Your task to perform on an android device: turn on the 12-hour format for clock Image 0: 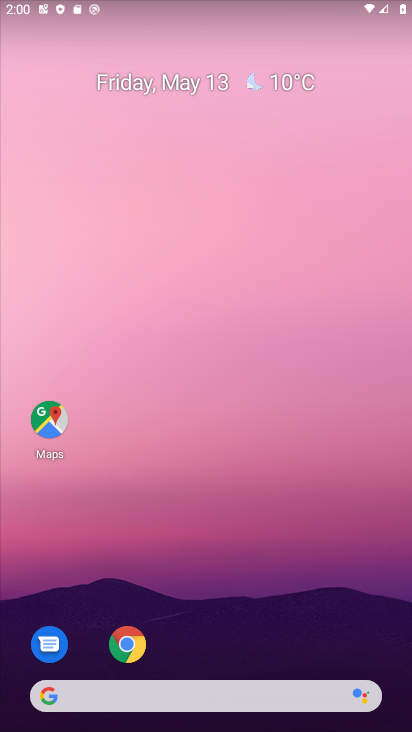
Step 0: drag from (224, 721) to (224, 104)
Your task to perform on an android device: turn on the 12-hour format for clock Image 1: 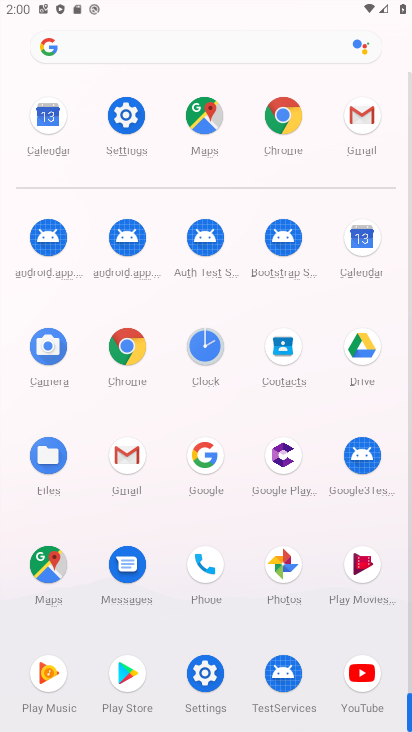
Step 1: click (201, 346)
Your task to perform on an android device: turn on the 12-hour format for clock Image 2: 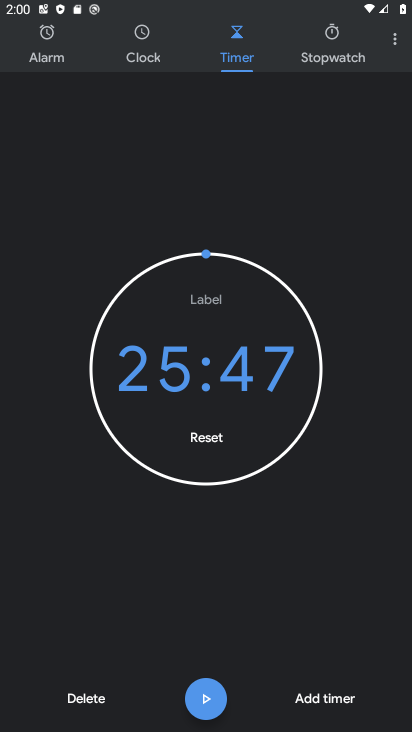
Step 2: click (394, 52)
Your task to perform on an android device: turn on the 12-hour format for clock Image 3: 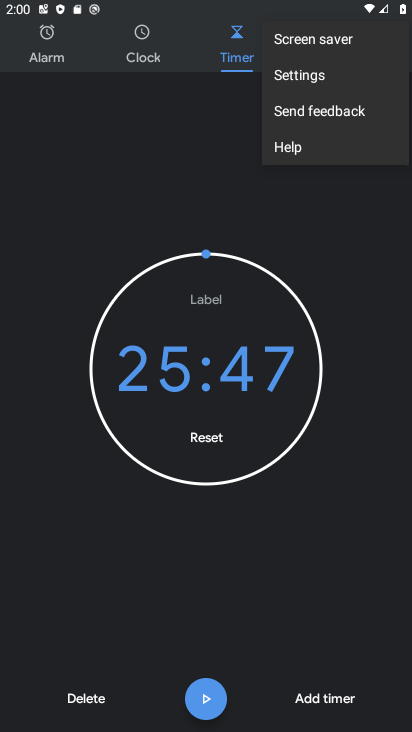
Step 3: click (300, 77)
Your task to perform on an android device: turn on the 12-hour format for clock Image 4: 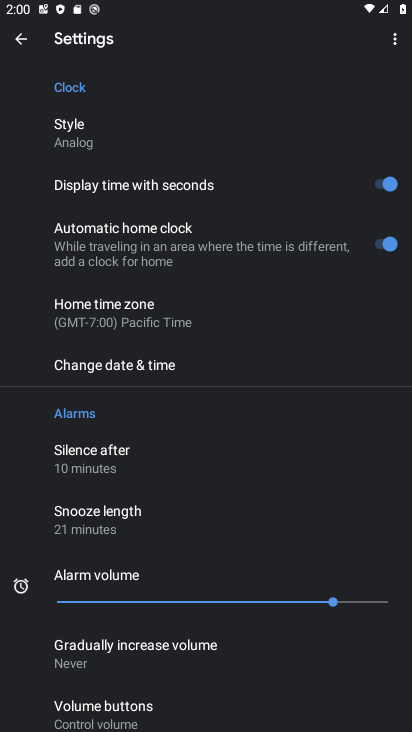
Step 4: click (105, 366)
Your task to perform on an android device: turn on the 12-hour format for clock Image 5: 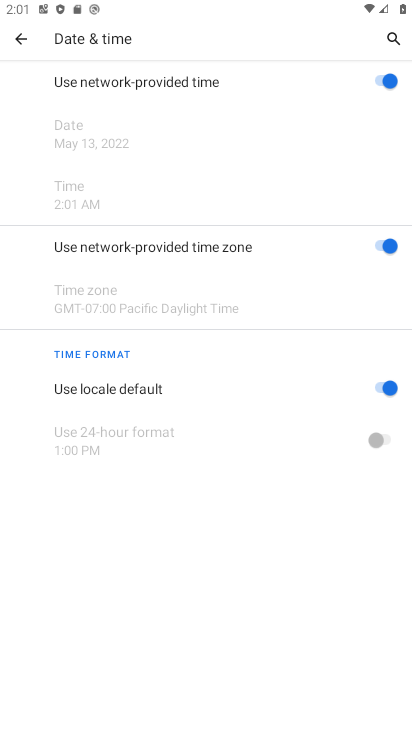
Step 5: task complete